Your task to perform on an android device: refresh tabs in the chrome app Image 0: 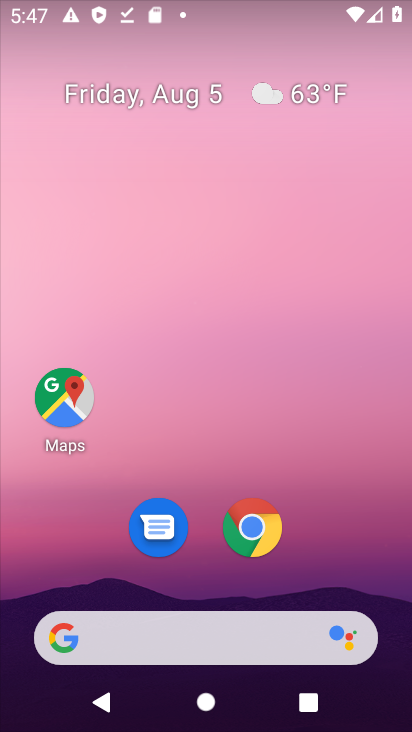
Step 0: drag from (214, 562) to (256, 69)
Your task to perform on an android device: refresh tabs in the chrome app Image 1: 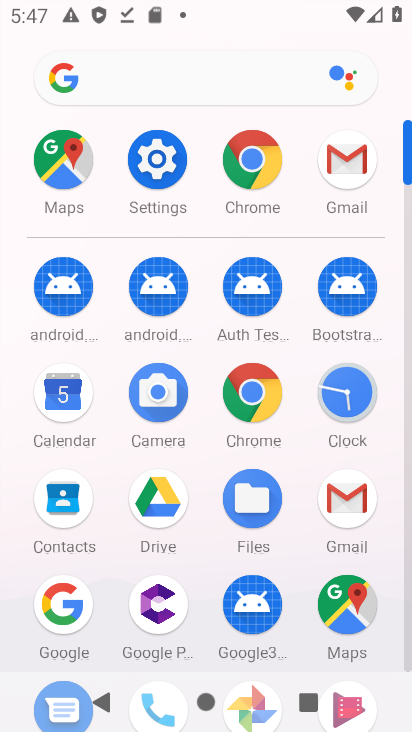
Step 1: click (254, 165)
Your task to perform on an android device: refresh tabs in the chrome app Image 2: 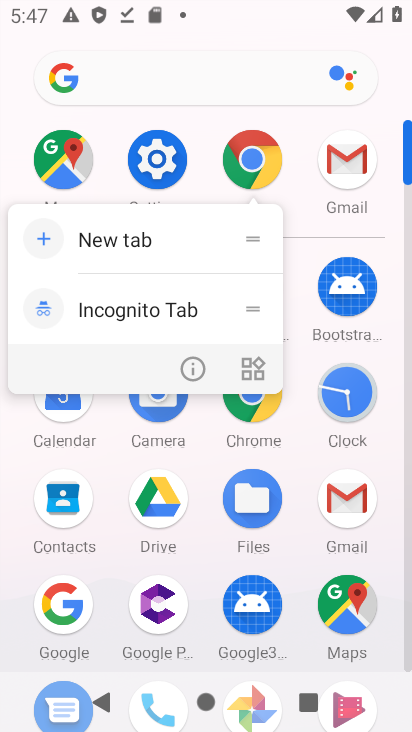
Step 2: click (191, 372)
Your task to perform on an android device: refresh tabs in the chrome app Image 3: 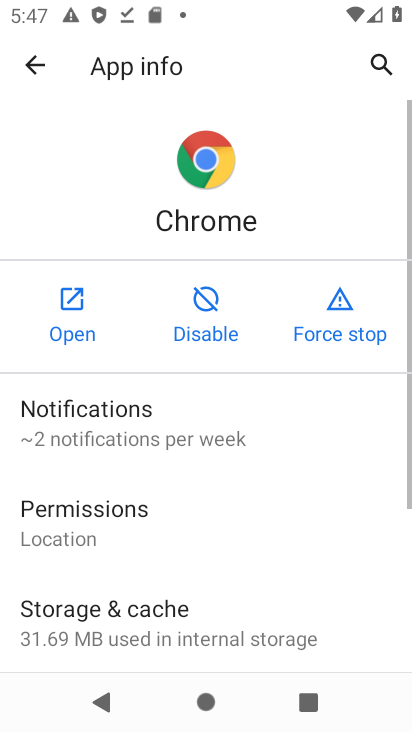
Step 3: click (69, 321)
Your task to perform on an android device: refresh tabs in the chrome app Image 4: 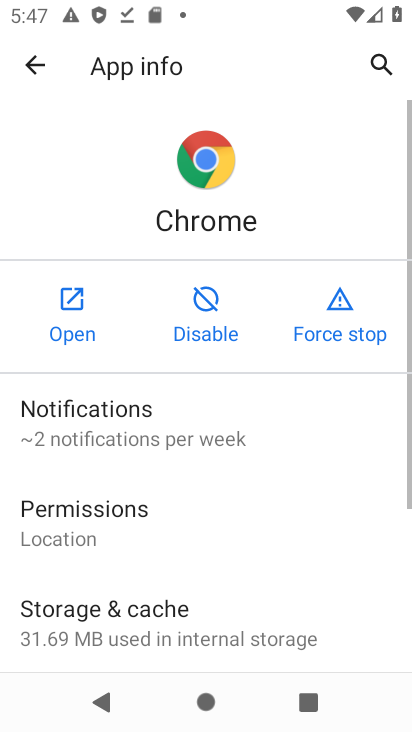
Step 4: click (68, 320)
Your task to perform on an android device: refresh tabs in the chrome app Image 5: 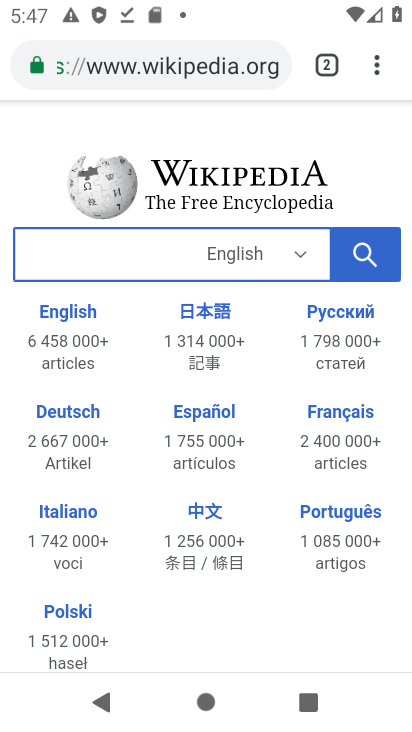
Step 5: click (379, 74)
Your task to perform on an android device: refresh tabs in the chrome app Image 6: 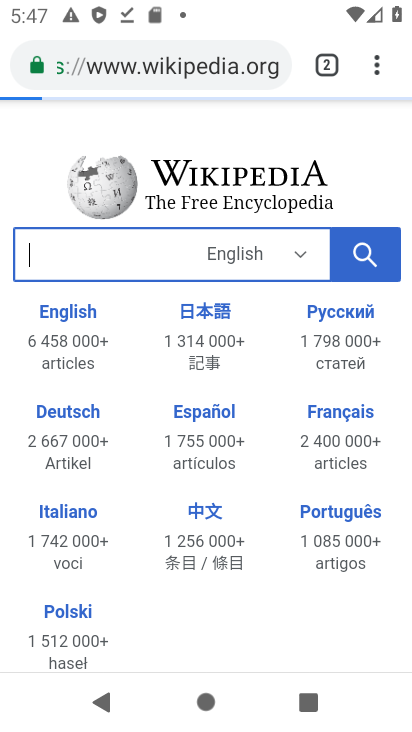
Step 6: click (376, 61)
Your task to perform on an android device: refresh tabs in the chrome app Image 7: 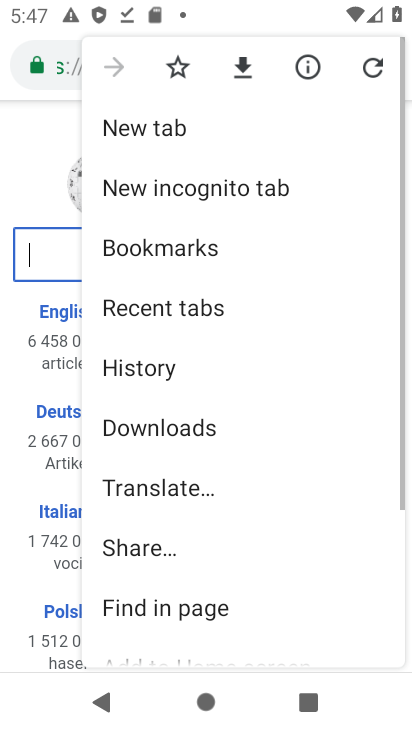
Step 7: task complete